Your task to perform on an android device: Open Google Chrome and open the bookmarks view Image 0: 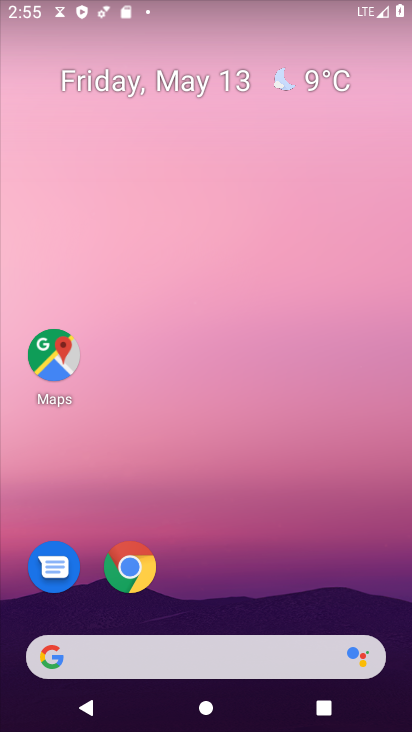
Step 0: click (131, 567)
Your task to perform on an android device: Open Google Chrome and open the bookmarks view Image 1: 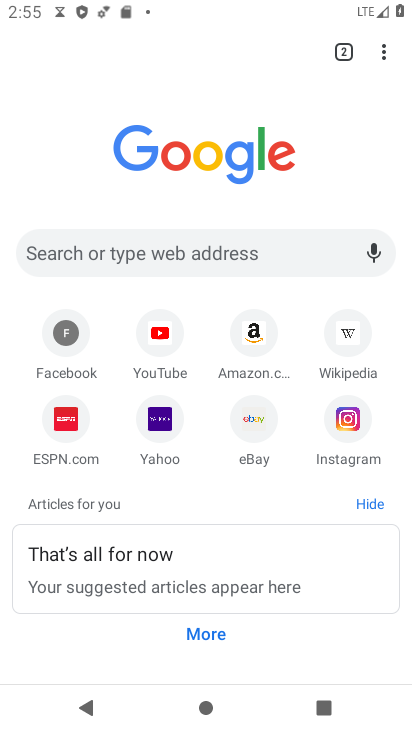
Step 1: task complete